Your task to perform on an android device: toggle show notifications on the lock screen Image 0: 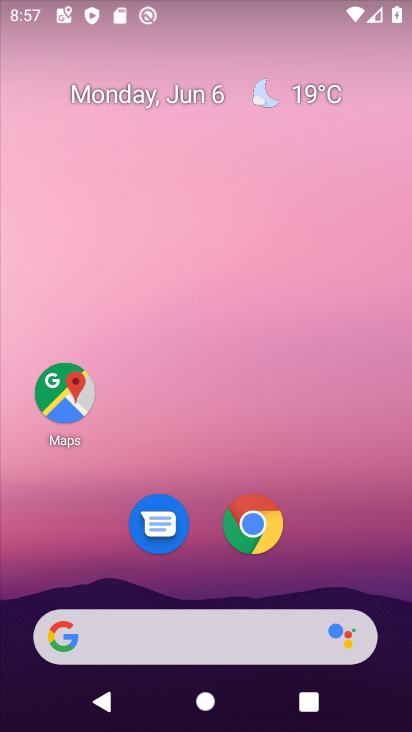
Step 0: drag from (312, 514) to (301, 45)
Your task to perform on an android device: toggle show notifications on the lock screen Image 1: 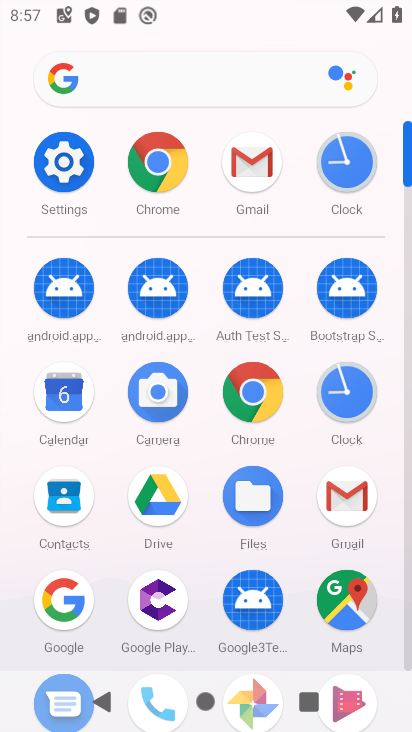
Step 1: click (80, 156)
Your task to perform on an android device: toggle show notifications on the lock screen Image 2: 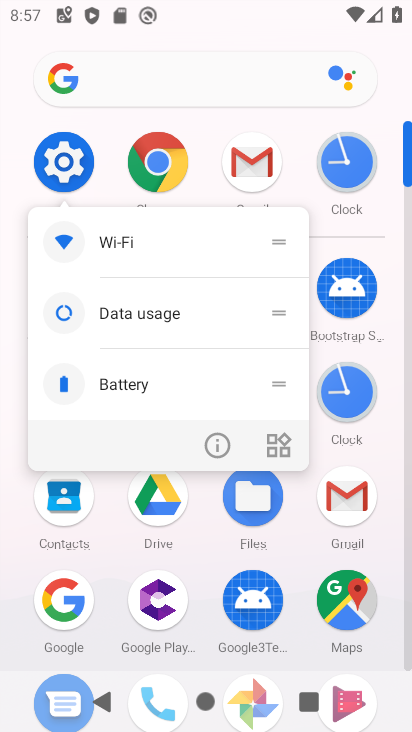
Step 2: click (80, 154)
Your task to perform on an android device: toggle show notifications on the lock screen Image 3: 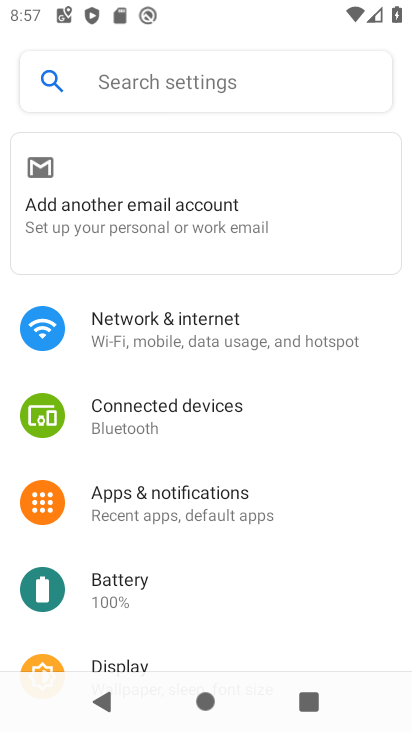
Step 3: click (211, 490)
Your task to perform on an android device: toggle show notifications on the lock screen Image 4: 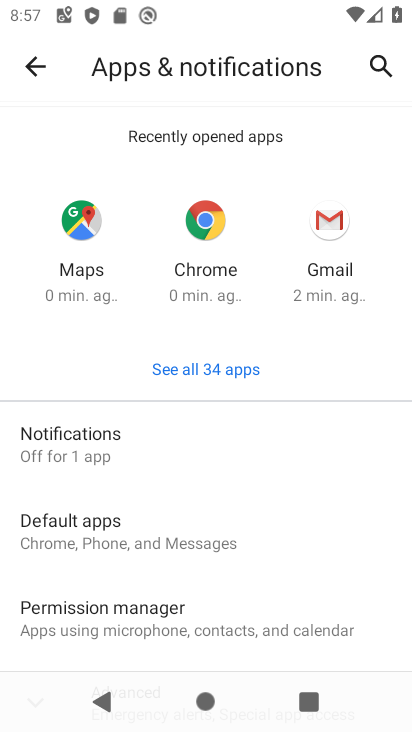
Step 4: drag from (289, 510) to (274, 411)
Your task to perform on an android device: toggle show notifications on the lock screen Image 5: 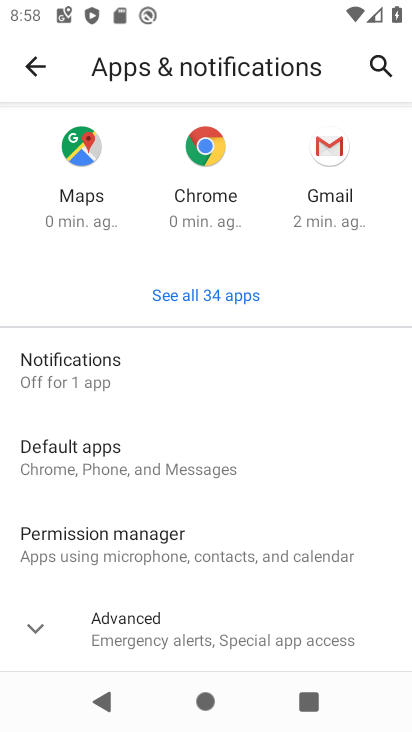
Step 5: click (145, 374)
Your task to perform on an android device: toggle show notifications on the lock screen Image 6: 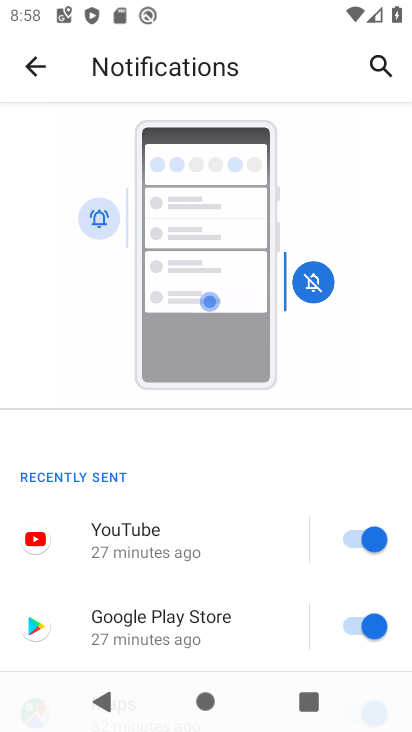
Step 6: drag from (236, 491) to (209, 189)
Your task to perform on an android device: toggle show notifications on the lock screen Image 7: 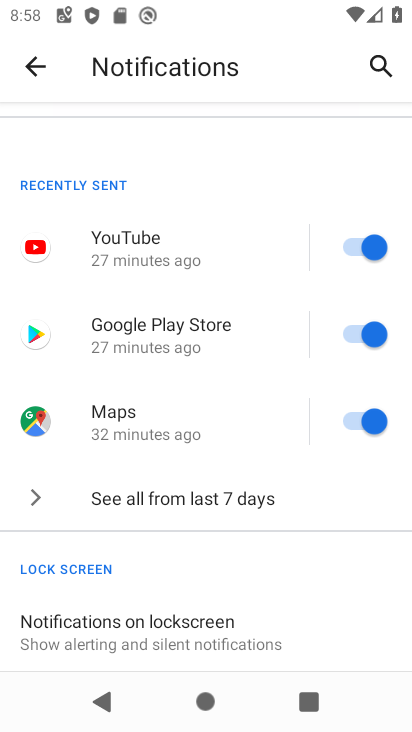
Step 7: click (179, 615)
Your task to perform on an android device: toggle show notifications on the lock screen Image 8: 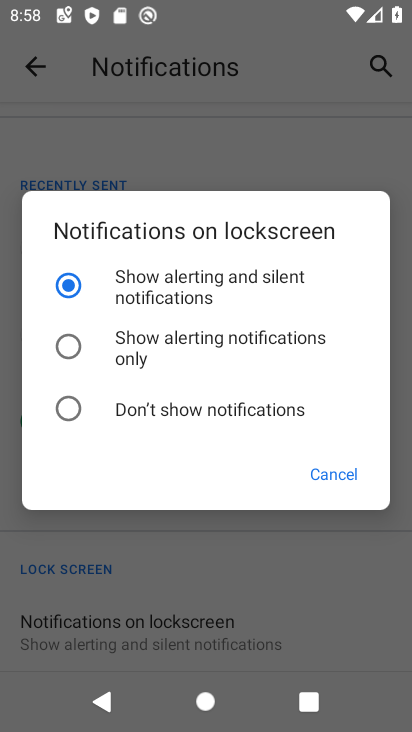
Step 8: click (67, 419)
Your task to perform on an android device: toggle show notifications on the lock screen Image 9: 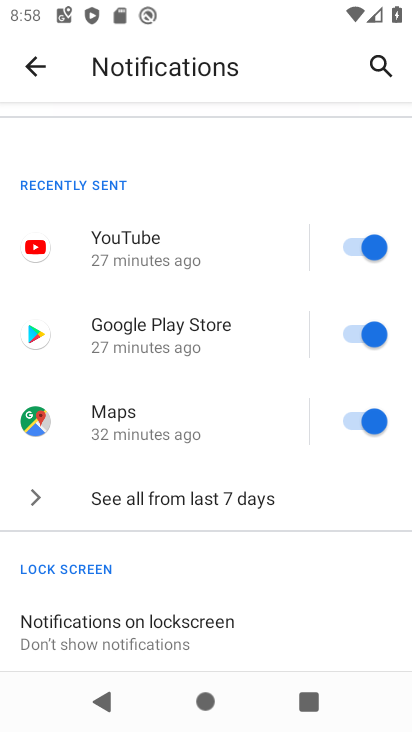
Step 9: task complete